Your task to perform on an android device: turn pop-ups off in chrome Image 0: 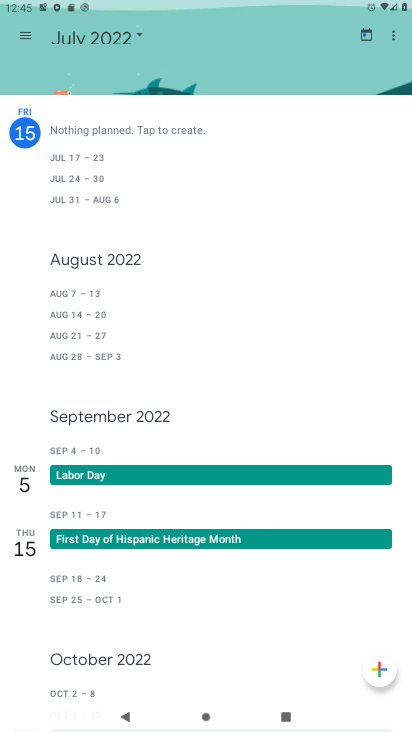
Step 0: press home button
Your task to perform on an android device: turn pop-ups off in chrome Image 1: 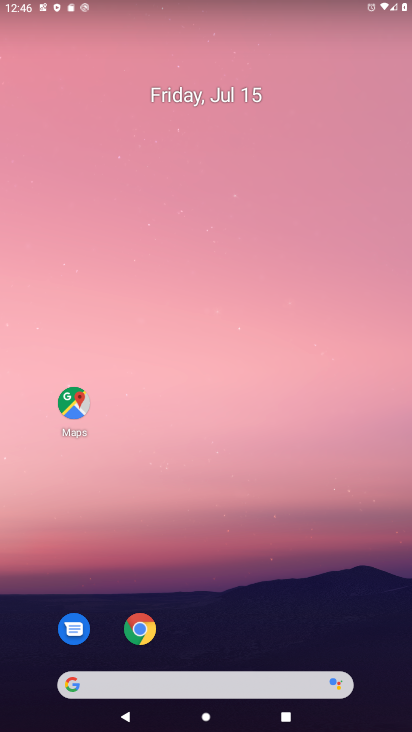
Step 1: drag from (247, 641) to (259, 86)
Your task to perform on an android device: turn pop-ups off in chrome Image 2: 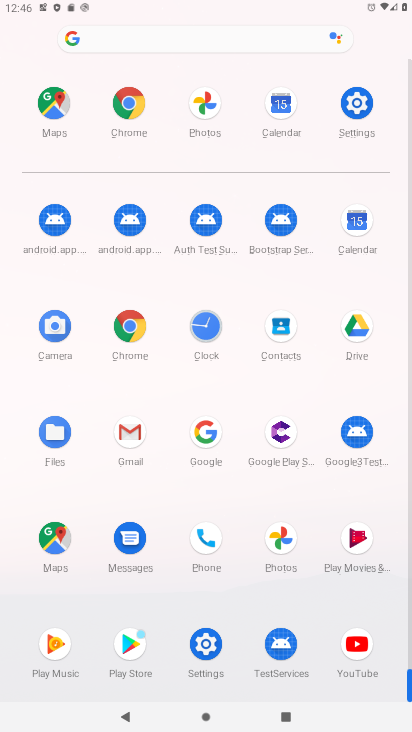
Step 2: click (126, 107)
Your task to perform on an android device: turn pop-ups off in chrome Image 3: 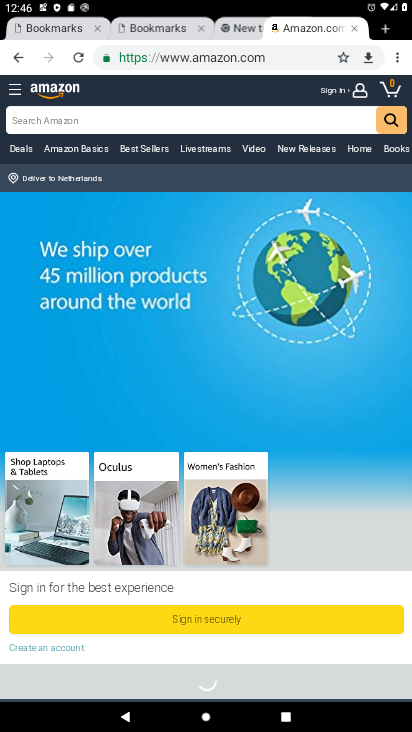
Step 3: drag from (397, 60) to (257, 383)
Your task to perform on an android device: turn pop-ups off in chrome Image 4: 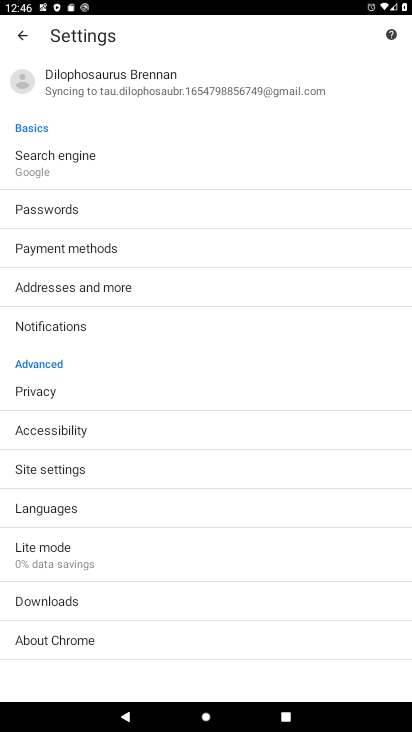
Step 4: click (36, 477)
Your task to perform on an android device: turn pop-ups off in chrome Image 5: 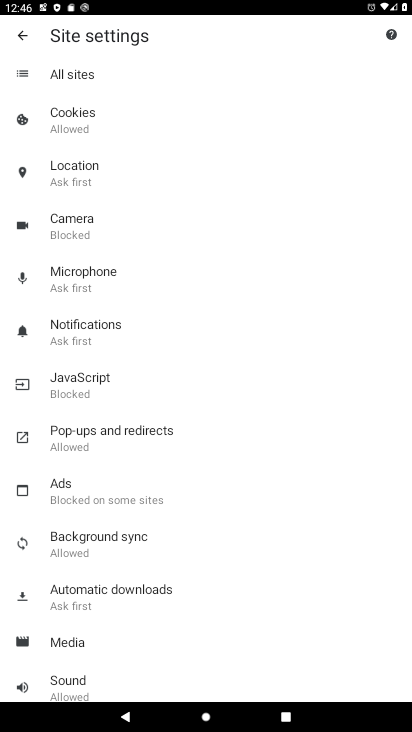
Step 5: click (94, 429)
Your task to perform on an android device: turn pop-ups off in chrome Image 6: 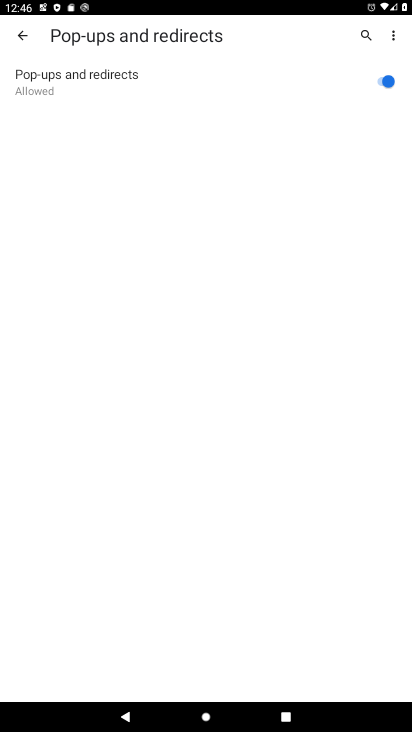
Step 6: task complete